Your task to perform on an android device: Go to settings Image 0: 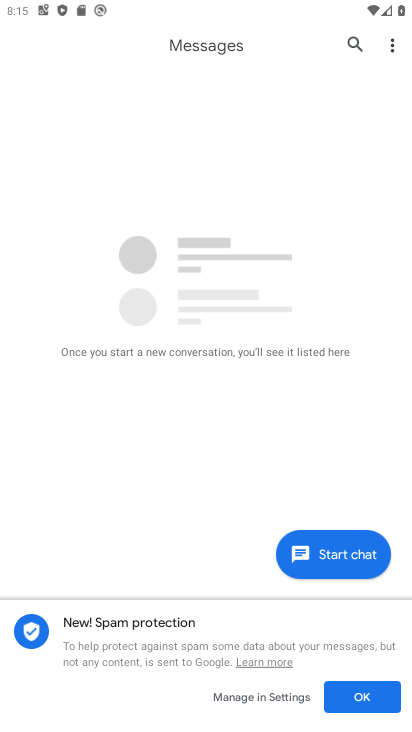
Step 0: press back button
Your task to perform on an android device: Go to settings Image 1: 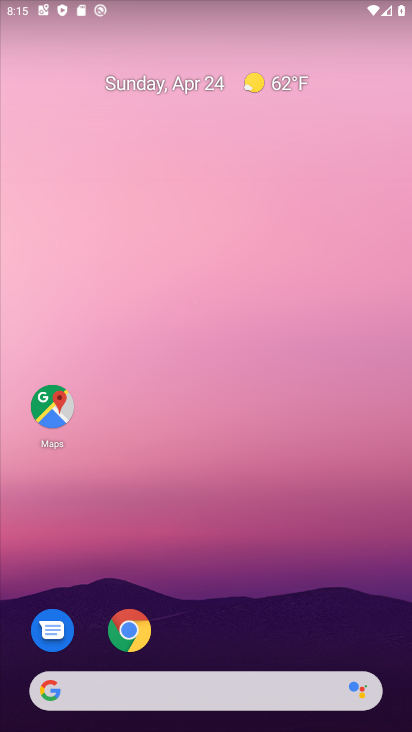
Step 1: drag from (269, 582) to (232, 68)
Your task to perform on an android device: Go to settings Image 2: 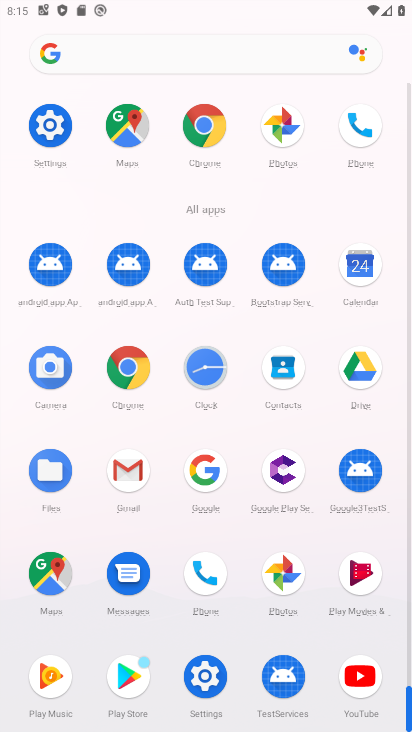
Step 2: click (201, 676)
Your task to perform on an android device: Go to settings Image 3: 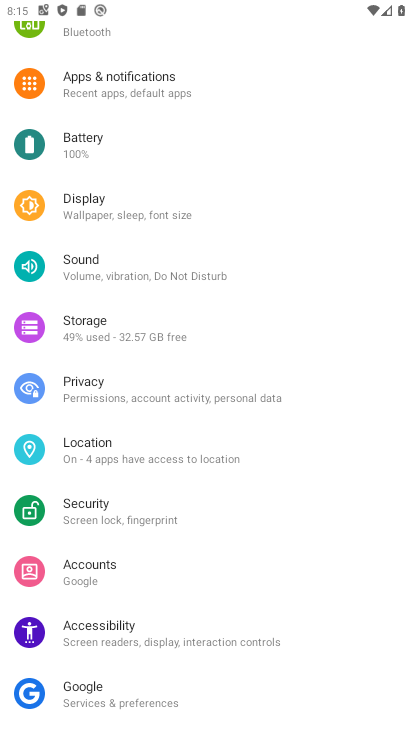
Step 3: drag from (304, 114) to (284, 560)
Your task to perform on an android device: Go to settings Image 4: 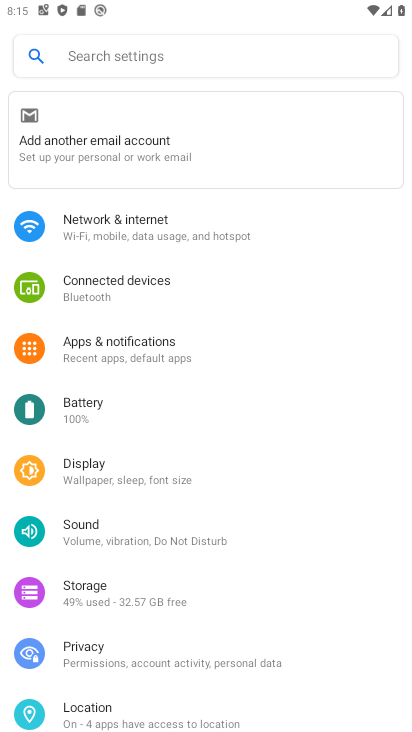
Step 4: drag from (262, 614) to (303, 172)
Your task to perform on an android device: Go to settings Image 5: 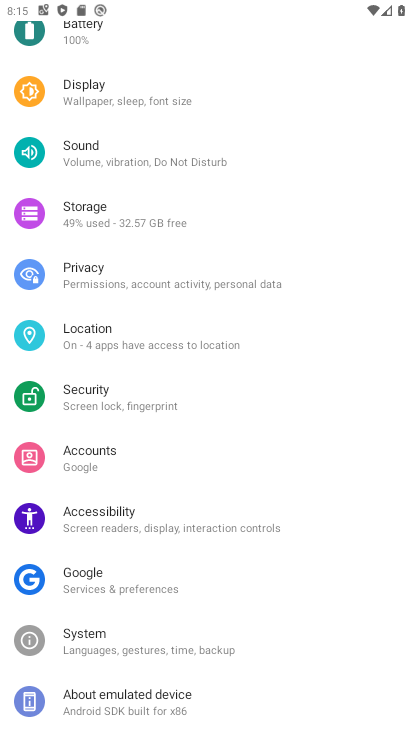
Step 5: drag from (244, 675) to (348, 156)
Your task to perform on an android device: Go to settings Image 6: 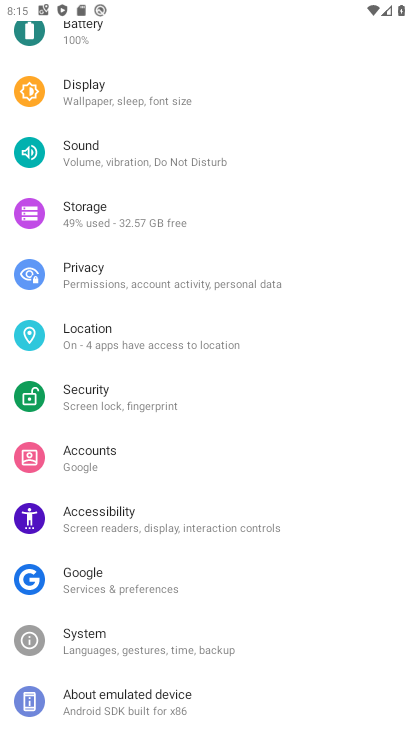
Step 6: drag from (266, 226) to (198, 642)
Your task to perform on an android device: Go to settings Image 7: 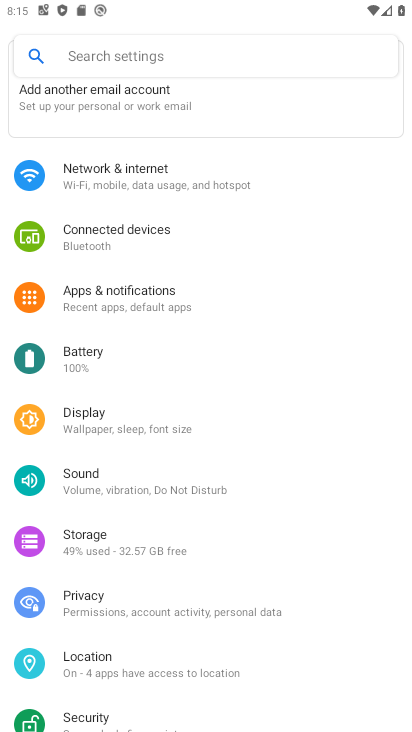
Step 7: drag from (257, 502) to (261, 397)
Your task to perform on an android device: Go to settings Image 8: 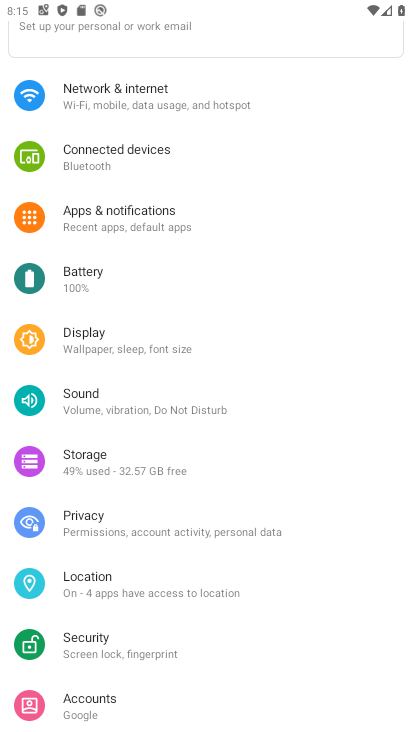
Step 8: click (294, 138)
Your task to perform on an android device: Go to settings Image 9: 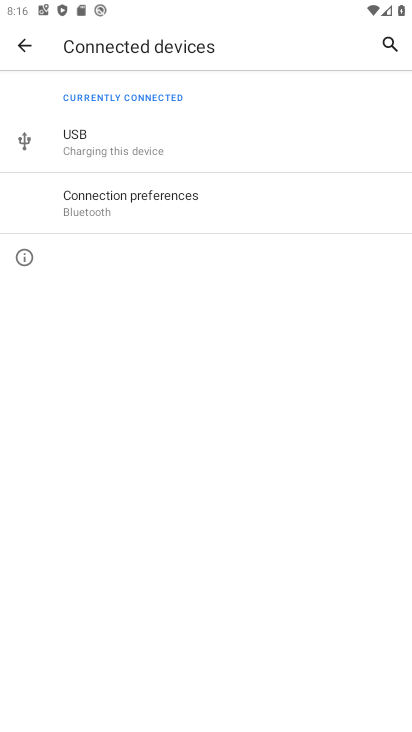
Step 9: click (33, 44)
Your task to perform on an android device: Go to settings Image 10: 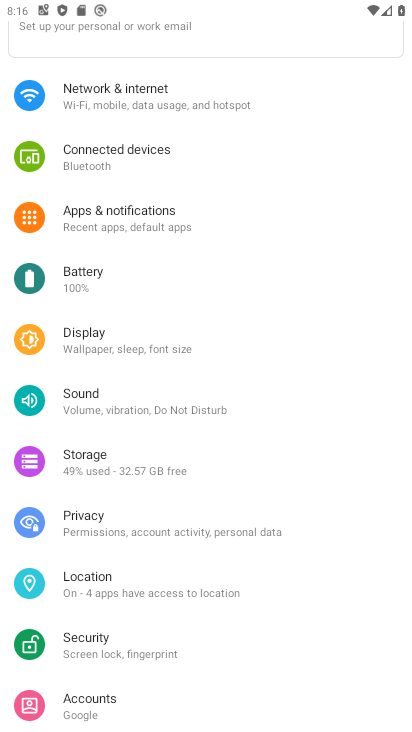
Step 10: task complete